Your task to perform on an android device: Open Reddit.com Image 0: 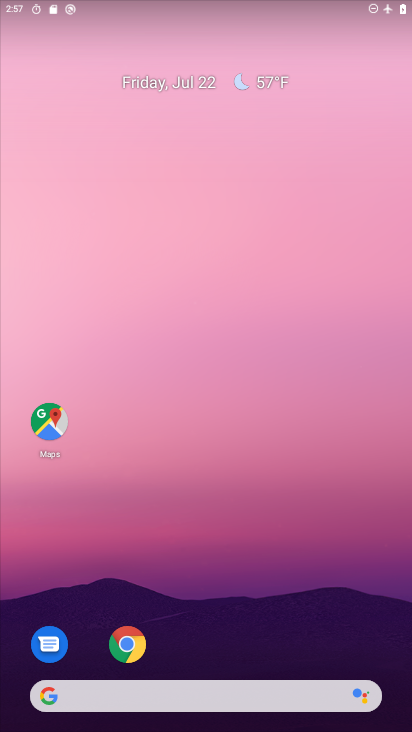
Step 0: click (140, 641)
Your task to perform on an android device: Open Reddit.com Image 1: 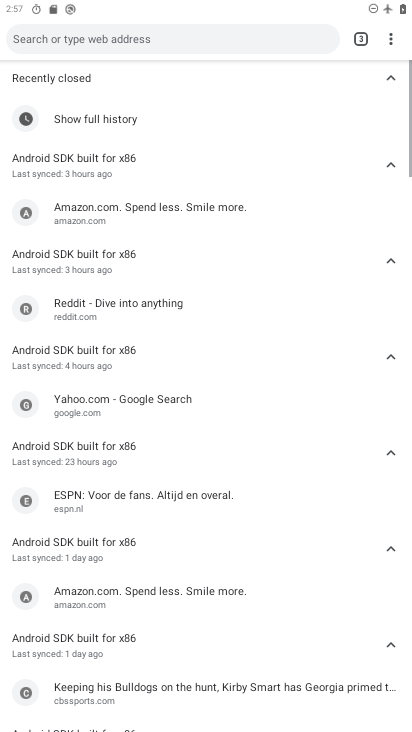
Step 1: click (368, 42)
Your task to perform on an android device: Open Reddit.com Image 2: 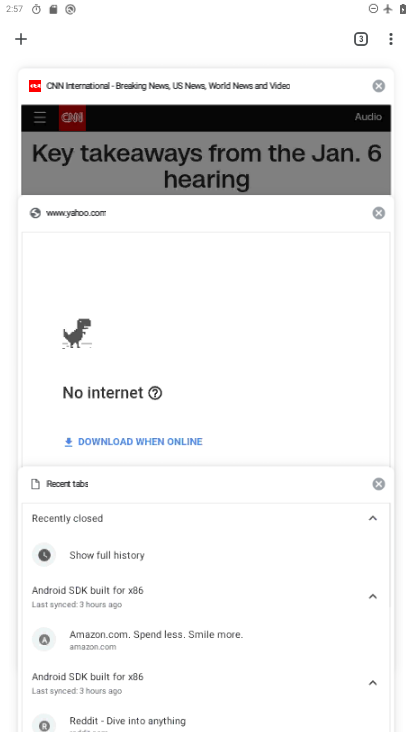
Step 2: click (10, 36)
Your task to perform on an android device: Open Reddit.com Image 3: 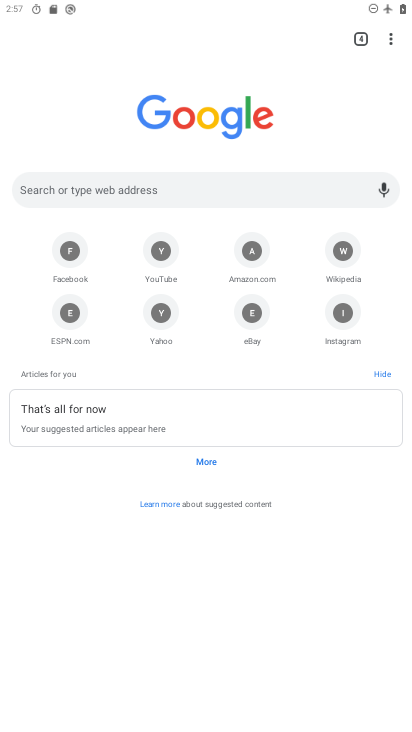
Step 3: click (160, 190)
Your task to perform on an android device: Open Reddit.com Image 4: 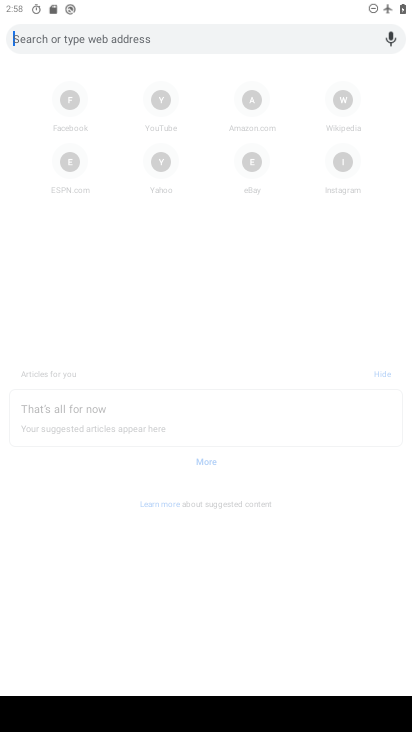
Step 4: type "Reddit.com"
Your task to perform on an android device: Open Reddit.com Image 5: 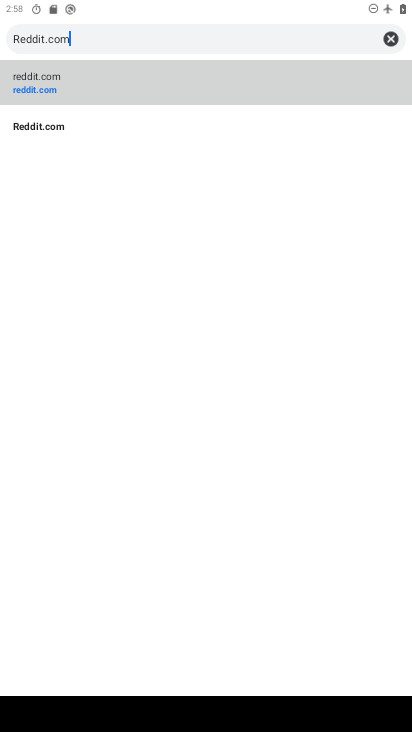
Step 5: type ""
Your task to perform on an android device: Open Reddit.com Image 6: 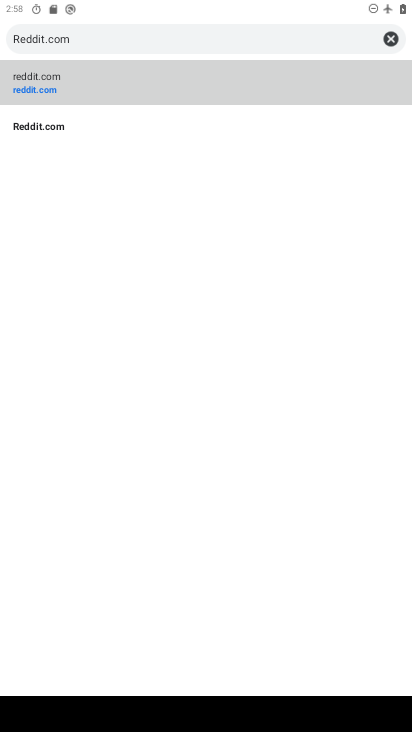
Step 6: click (63, 87)
Your task to perform on an android device: Open Reddit.com Image 7: 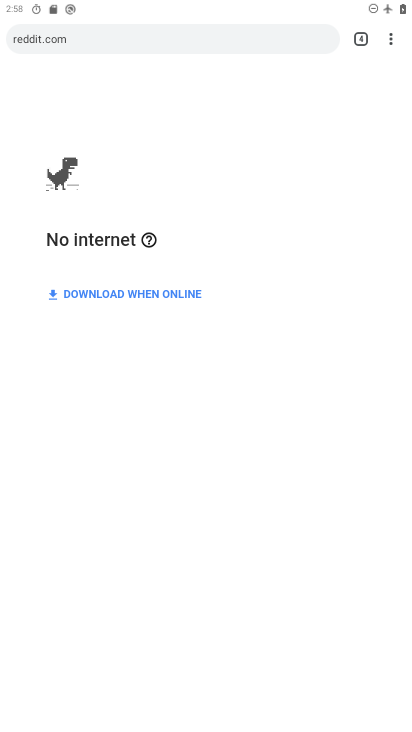
Step 7: task complete